Your task to perform on an android device: Go to sound settings Image 0: 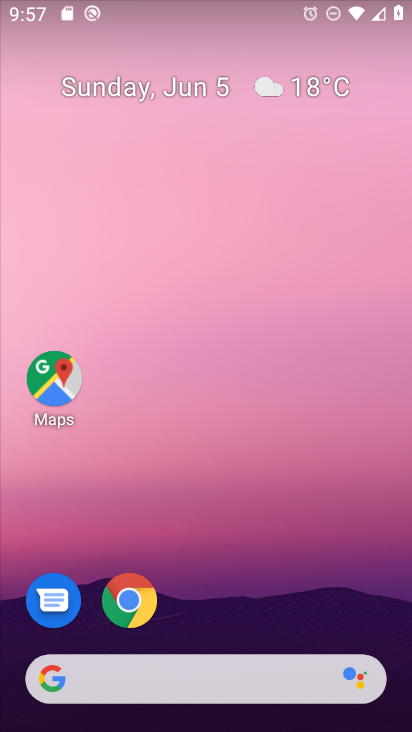
Step 0: drag from (280, 605) to (238, 6)
Your task to perform on an android device: Go to sound settings Image 1: 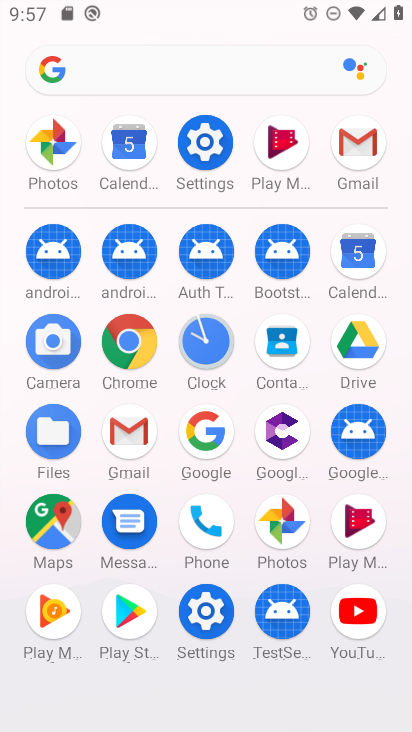
Step 1: click (206, 134)
Your task to perform on an android device: Go to sound settings Image 2: 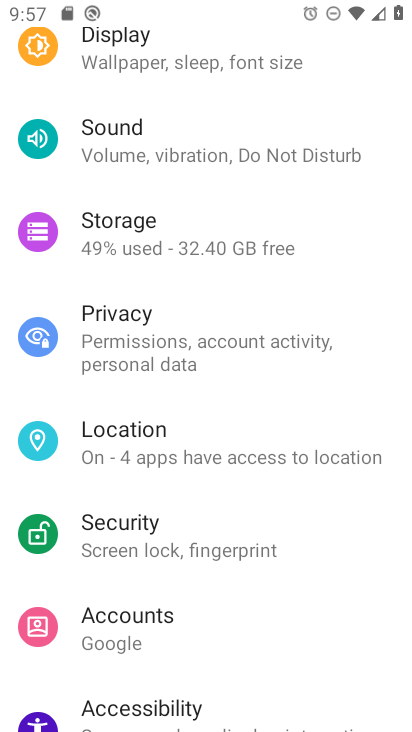
Step 2: click (223, 156)
Your task to perform on an android device: Go to sound settings Image 3: 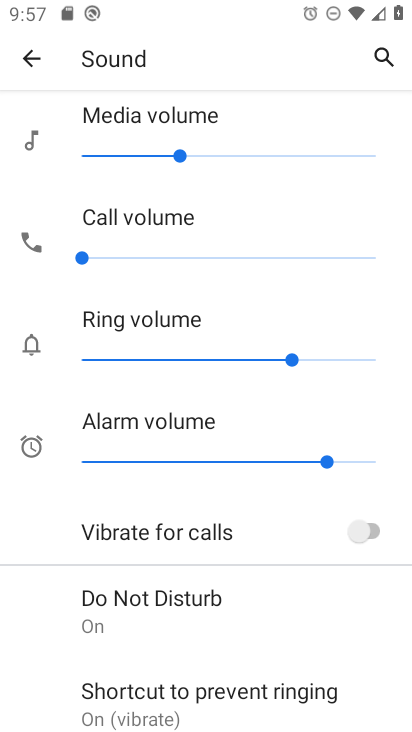
Step 3: task complete